Your task to perform on an android device: check storage Image 0: 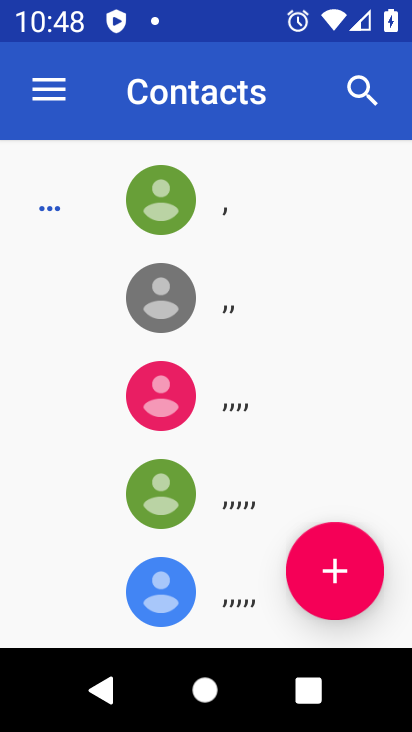
Step 0: press home button
Your task to perform on an android device: check storage Image 1: 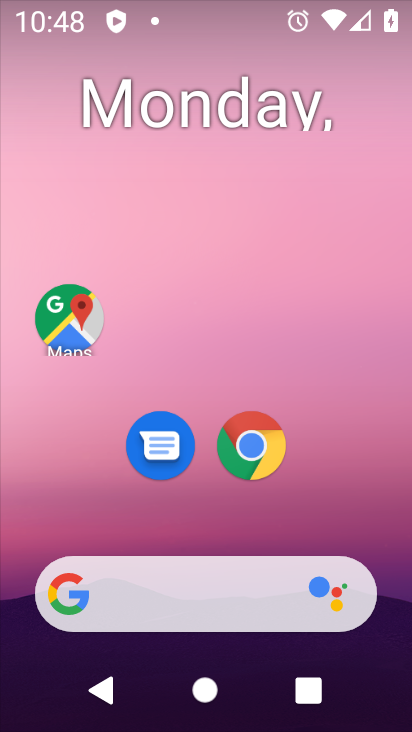
Step 1: drag from (319, 507) to (195, 154)
Your task to perform on an android device: check storage Image 2: 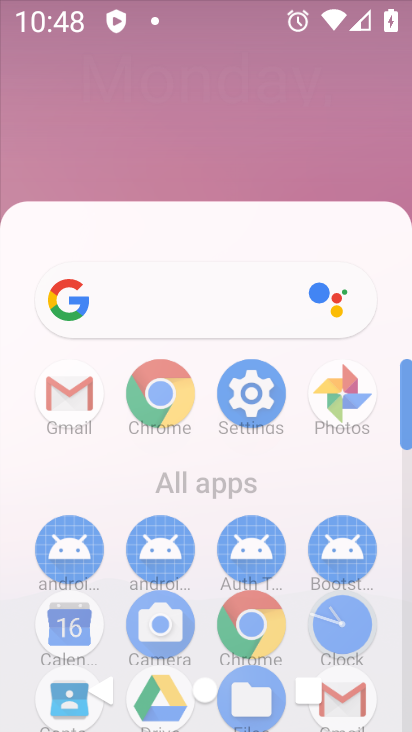
Step 2: click (87, 81)
Your task to perform on an android device: check storage Image 3: 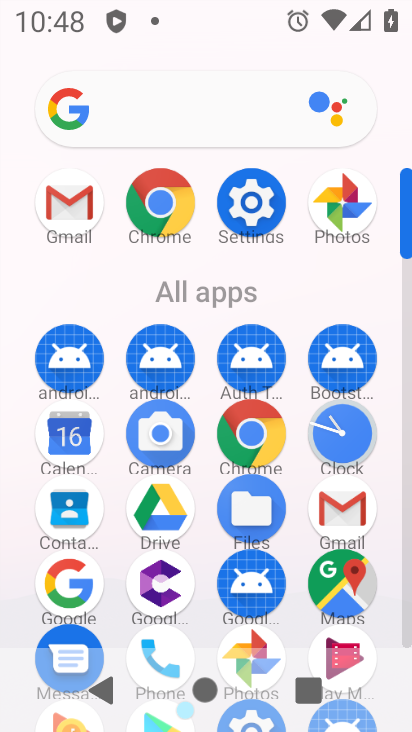
Step 3: click (250, 209)
Your task to perform on an android device: check storage Image 4: 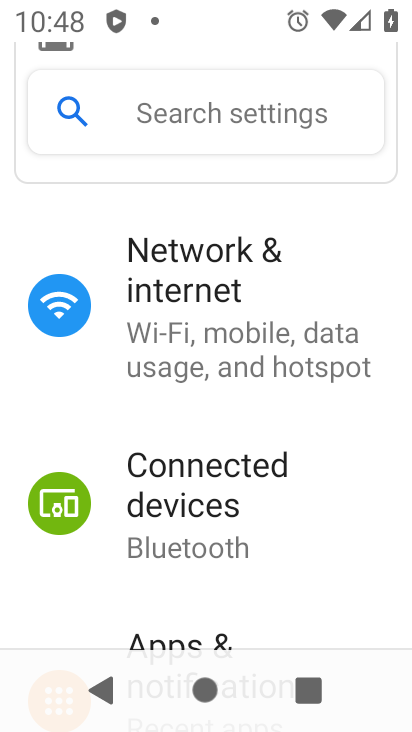
Step 4: drag from (154, 653) to (158, 235)
Your task to perform on an android device: check storage Image 5: 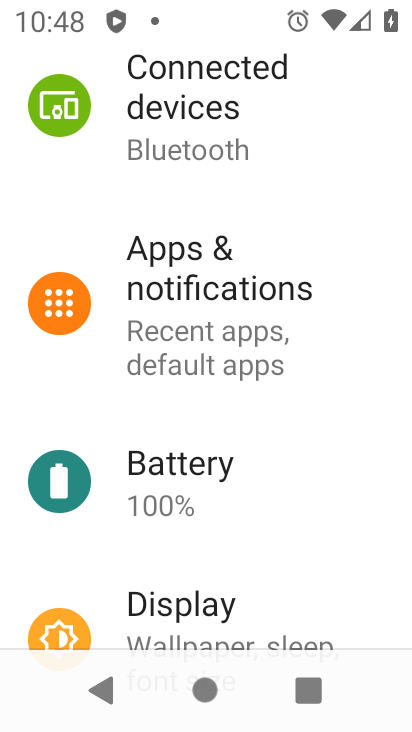
Step 5: drag from (294, 581) to (297, 126)
Your task to perform on an android device: check storage Image 6: 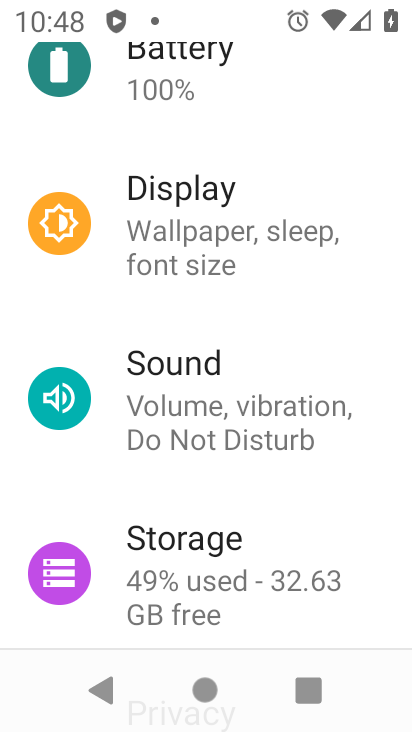
Step 6: click (138, 571)
Your task to perform on an android device: check storage Image 7: 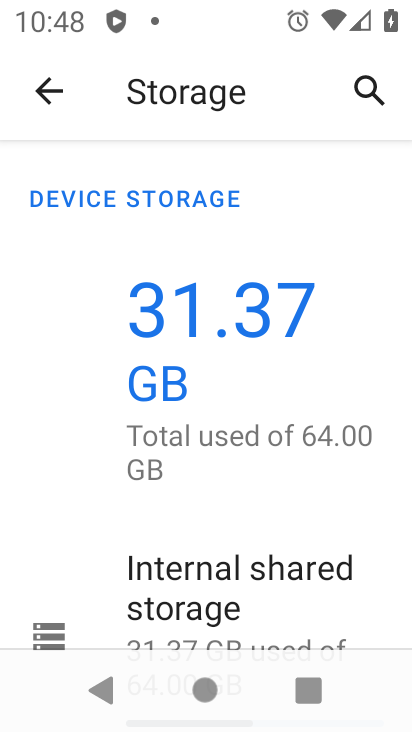
Step 7: task complete